Your task to perform on an android device: How old is the earth? Image 0: 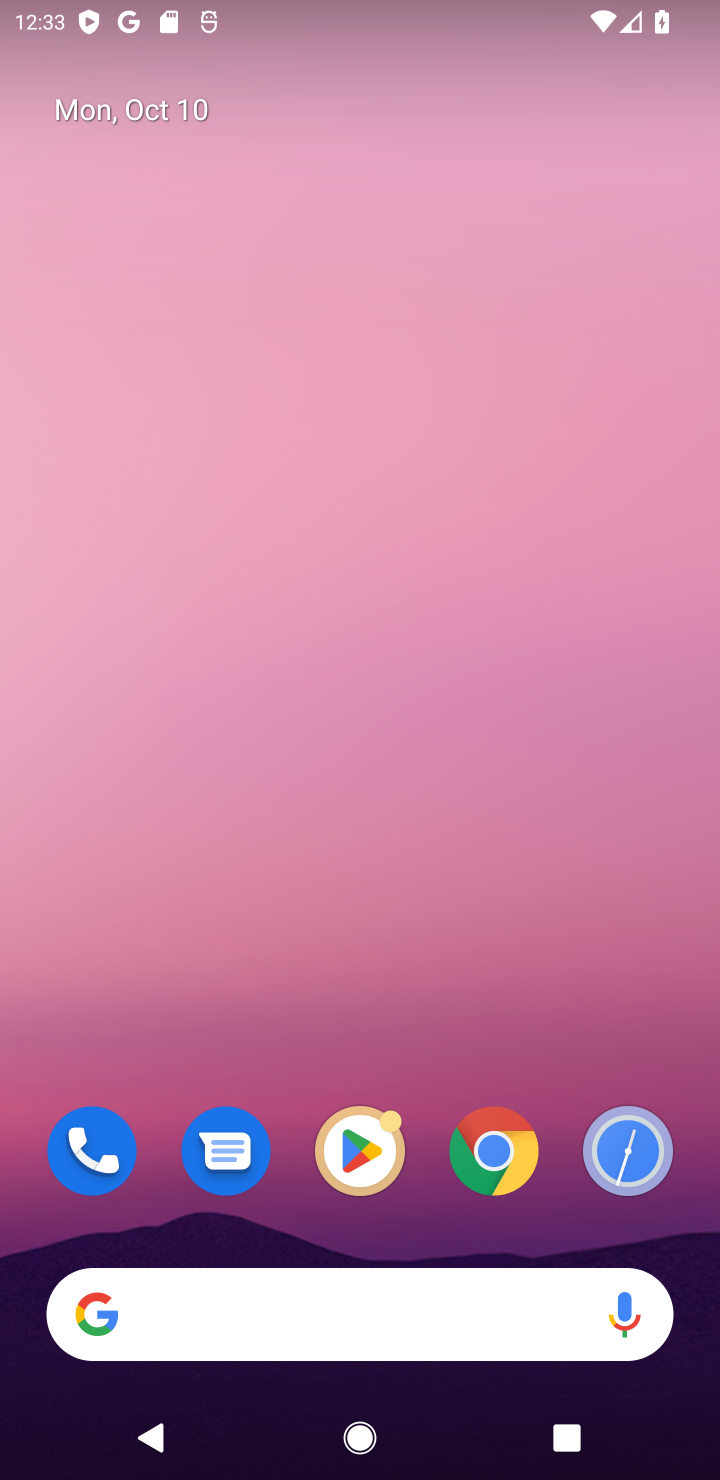
Step 0: click (466, 1293)
Your task to perform on an android device: How old is the earth? Image 1: 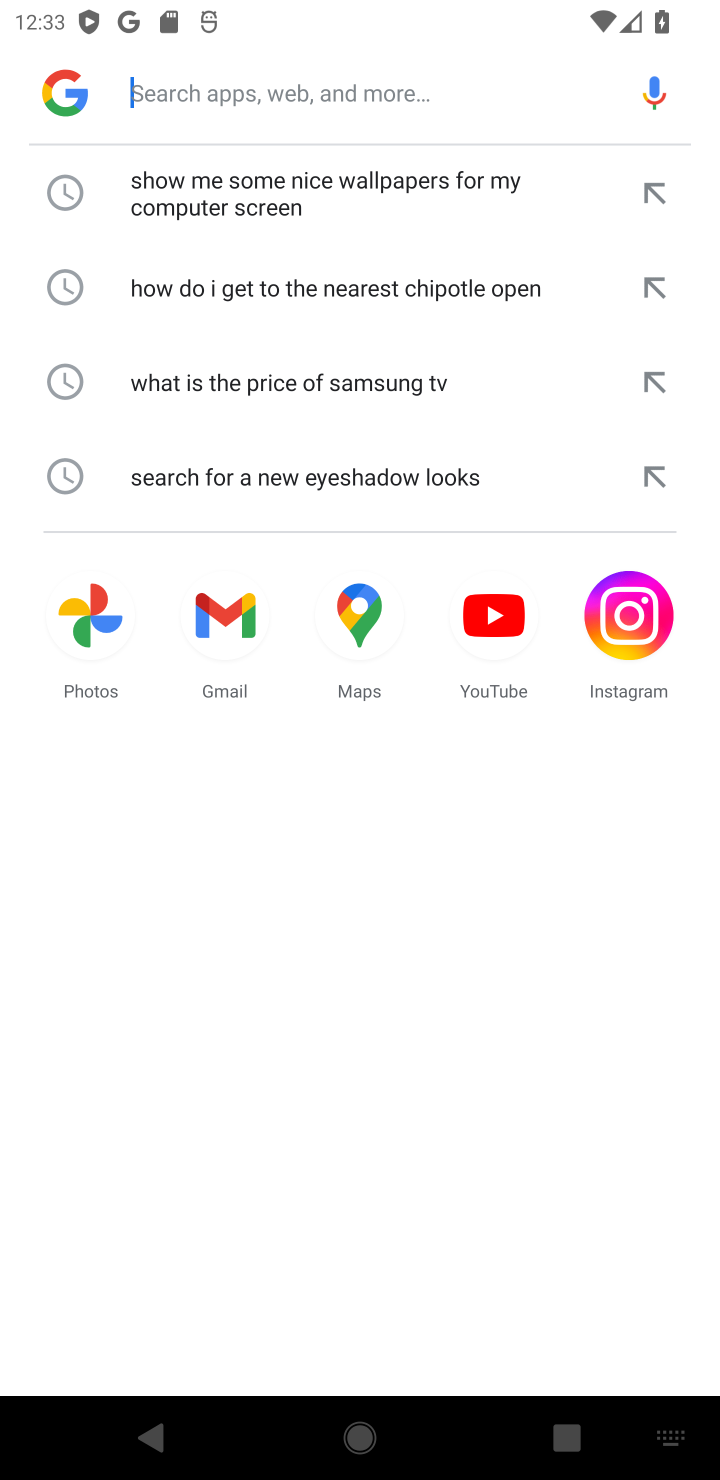
Step 1: type "How old is the earth?"
Your task to perform on an android device: How old is the earth? Image 2: 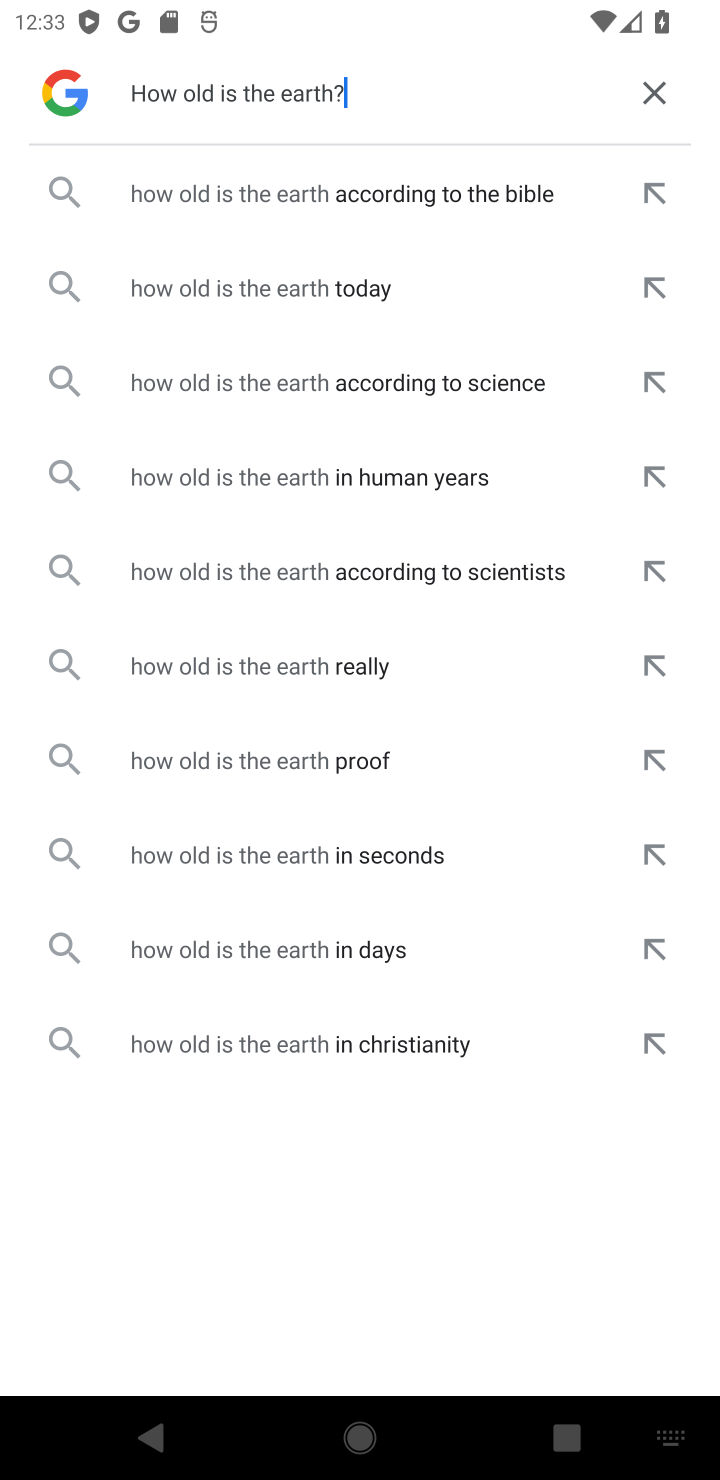
Step 2: click (193, 281)
Your task to perform on an android device: How old is the earth? Image 3: 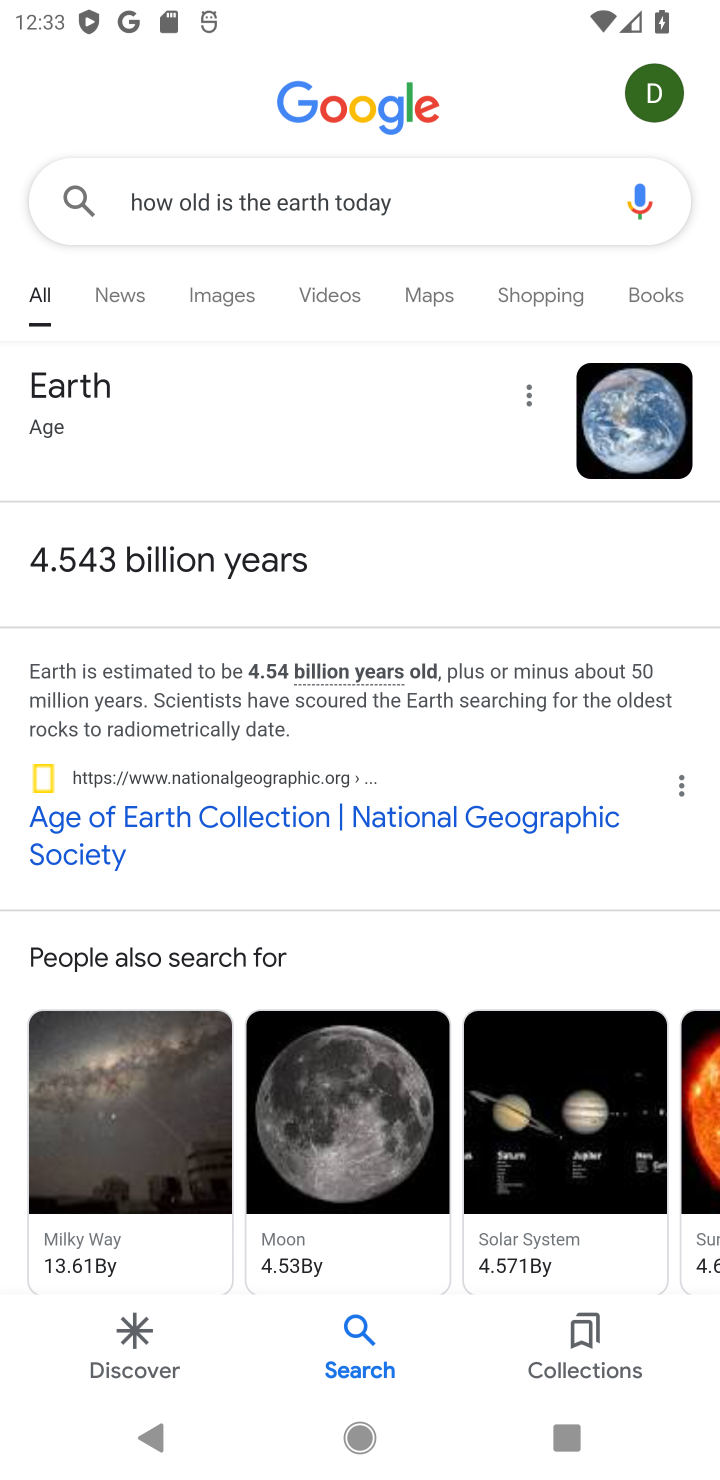
Step 3: task complete